Your task to perform on an android device: check out phone information Image 0: 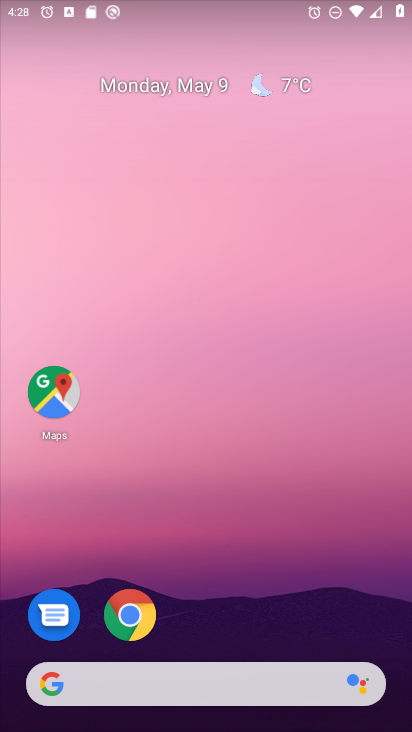
Step 0: drag from (371, 625) to (294, 81)
Your task to perform on an android device: check out phone information Image 1: 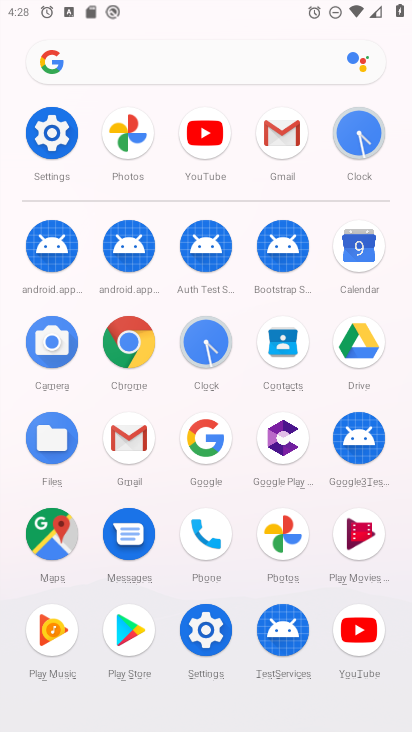
Step 1: click (204, 631)
Your task to perform on an android device: check out phone information Image 2: 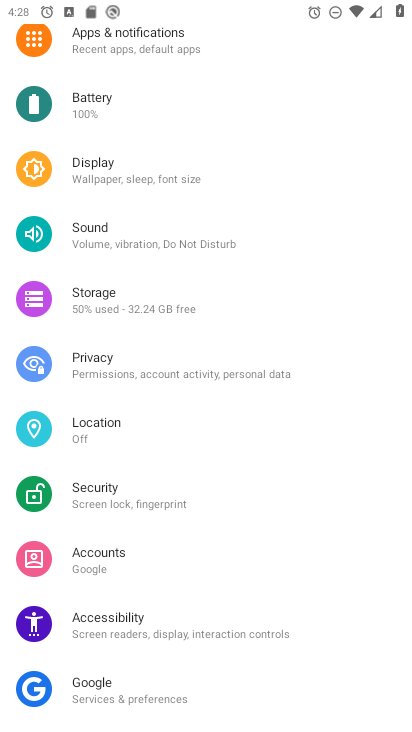
Step 2: drag from (318, 646) to (322, 300)
Your task to perform on an android device: check out phone information Image 3: 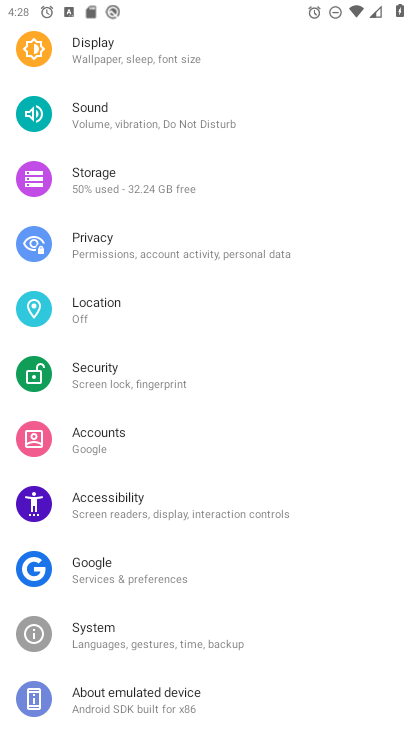
Step 3: click (112, 696)
Your task to perform on an android device: check out phone information Image 4: 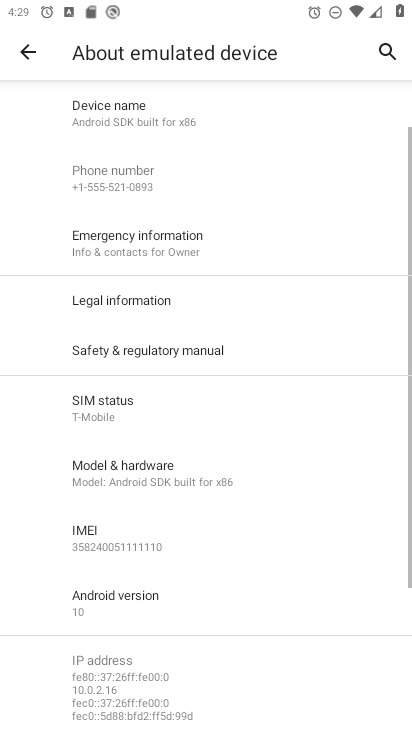
Step 4: task complete